Your task to perform on an android device: add a contact Image 0: 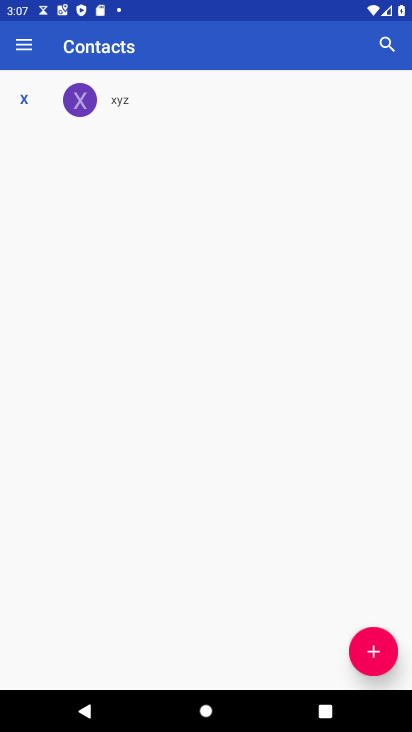
Step 0: press home button
Your task to perform on an android device: add a contact Image 1: 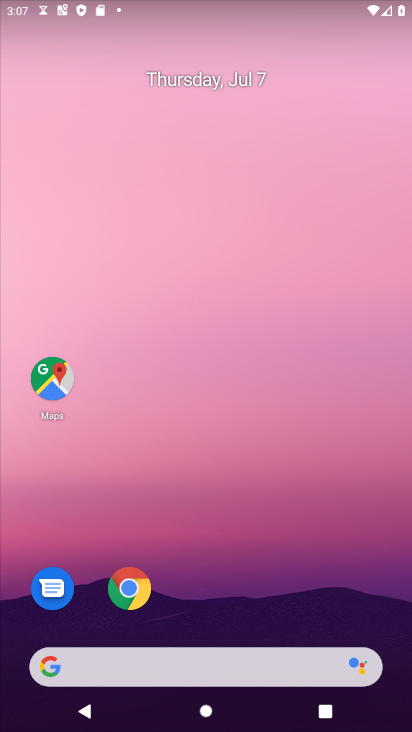
Step 1: drag from (300, 616) to (275, 150)
Your task to perform on an android device: add a contact Image 2: 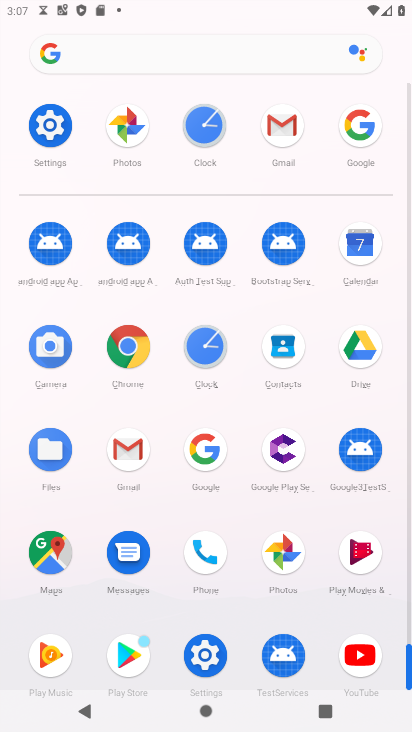
Step 2: click (283, 346)
Your task to perform on an android device: add a contact Image 3: 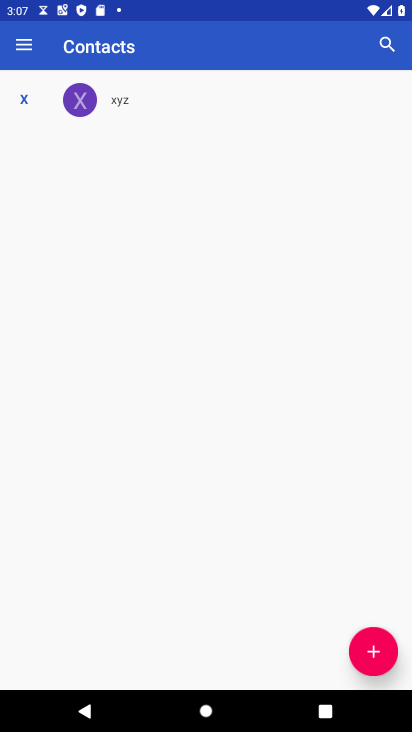
Step 3: click (377, 652)
Your task to perform on an android device: add a contact Image 4: 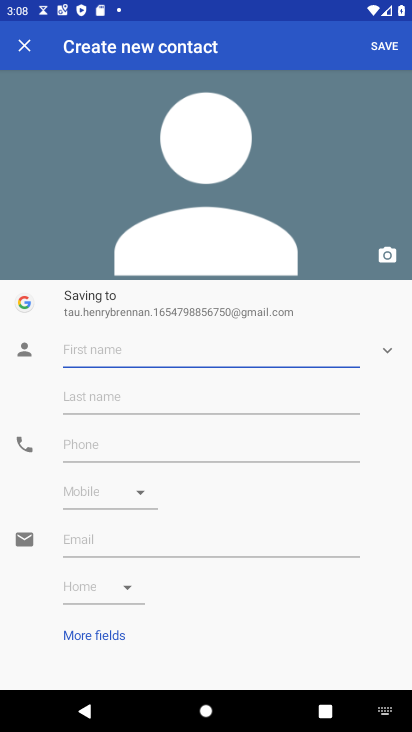
Step 4: type "Jasoda "
Your task to perform on an android device: add a contact Image 5: 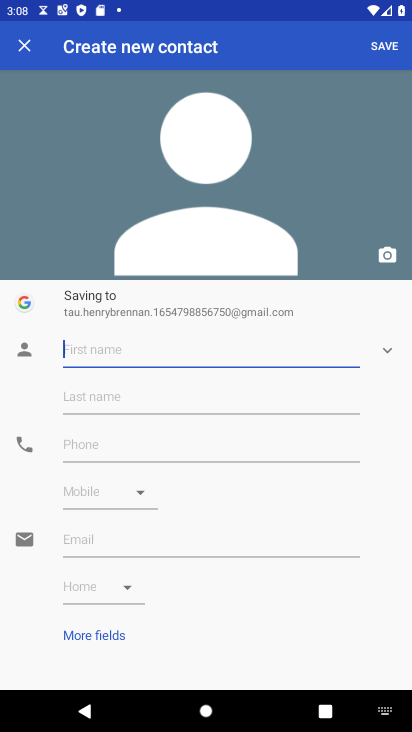
Step 5: click (200, 393)
Your task to perform on an android device: add a contact Image 6: 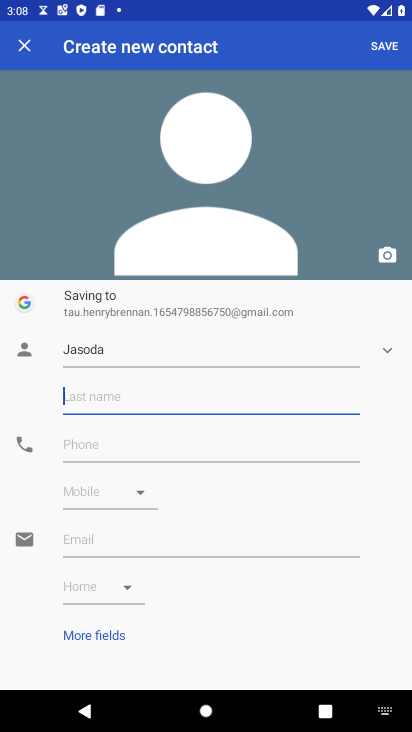
Step 6: type "Modi"
Your task to perform on an android device: add a contact Image 7: 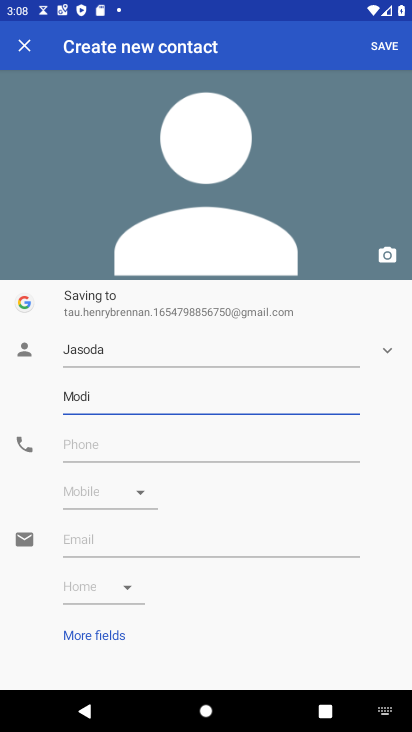
Step 7: click (189, 446)
Your task to perform on an android device: add a contact Image 8: 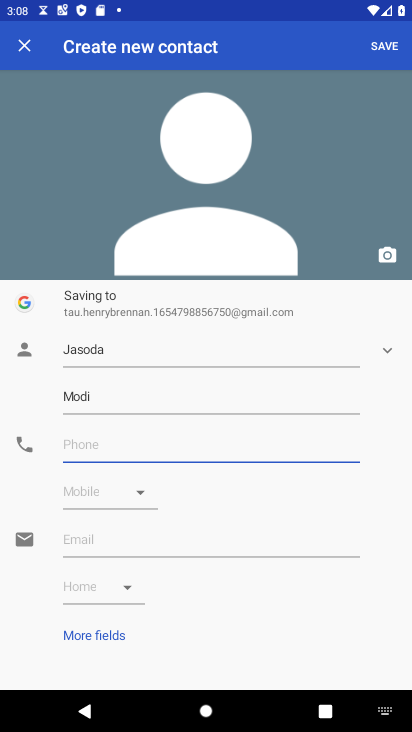
Step 8: type "09988776655"
Your task to perform on an android device: add a contact Image 9: 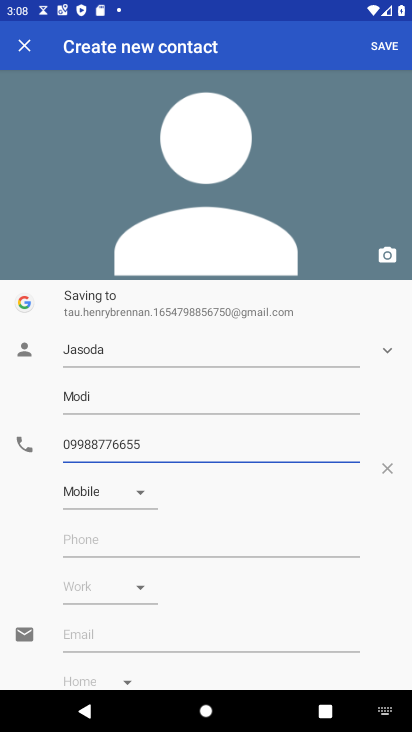
Step 9: click (382, 41)
Your task to perform on an android device: add a contact Image 10: 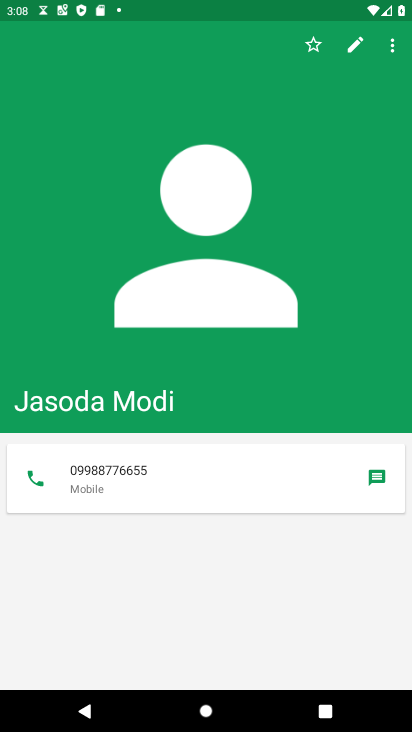
Step 10: task complete